Your task to perform on an android device: toggle translation in the chrome app Image 0: 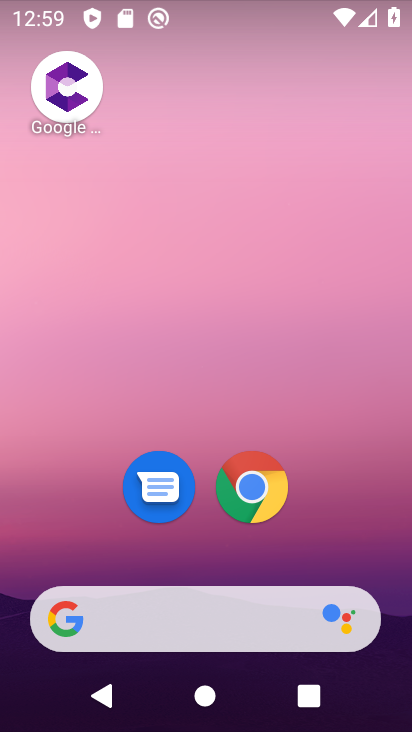
Step 0: drag from (356, 561) to (337, 433)
Your task to perform on an android device: toggle translation in the chrome app Image 1: 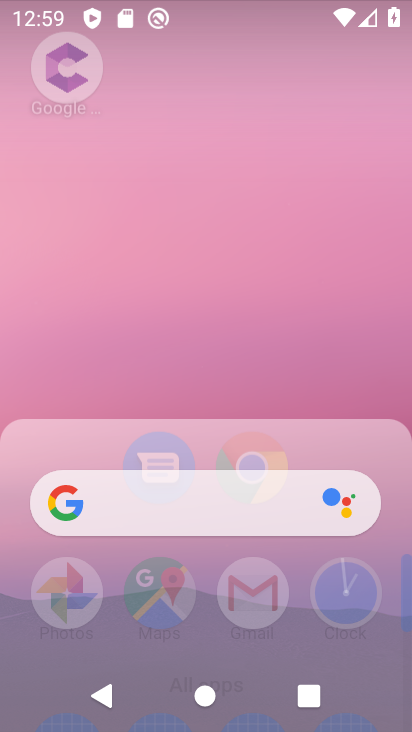
Step 1: click (336, 433)
Your task to perform on an android device: toggle translation in the chrome app Image 2: 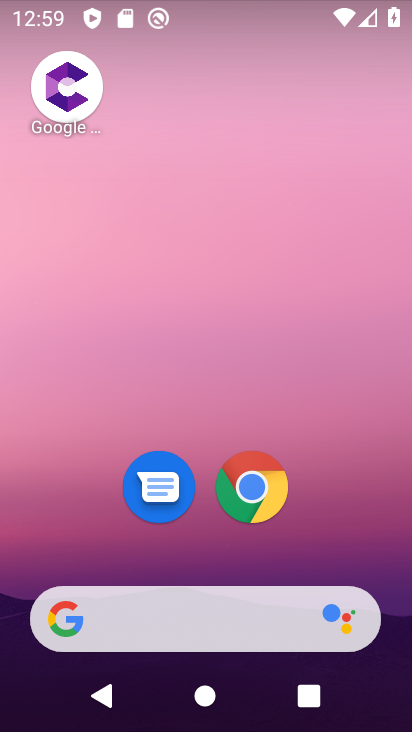
Step 2: click (276, 496)
Your task to perform on an android device: toggle translation in the chrome app Image 3: 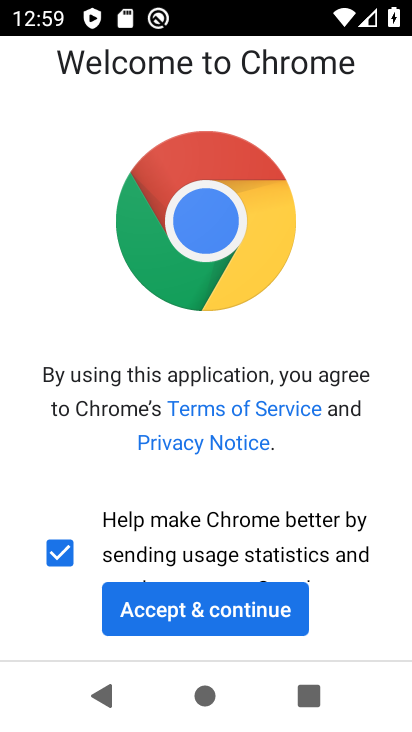
Step 3: click (271, 615)
Your task to perform on an android device: toggle translation in the chrome app Image 4: 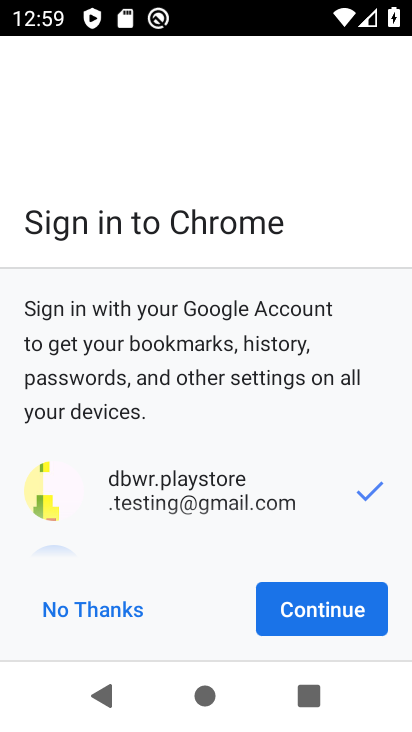
Step 4: click (291, 622)
Your task to perform on an android device: toggle translation in the chrome app Image 5: 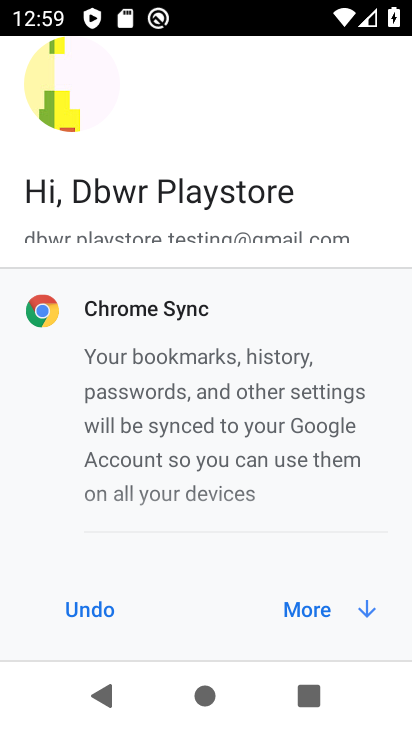
Step 5: click (294, 612)
Your task to perform on an android device: toggle translation in the chrome app Image 6: 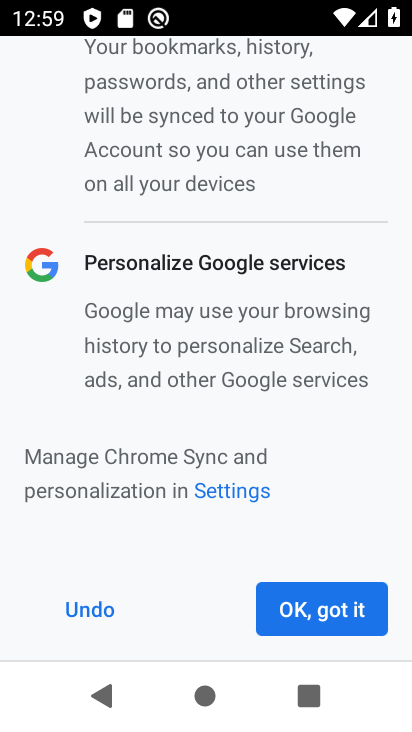
Step 6: click (311, 610)
Your task to perform on an android device: toggle translation in the chrome app Image 7: 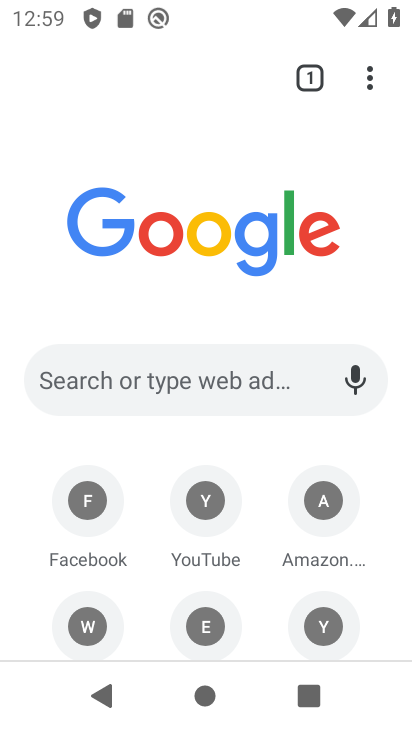
Step 7: click (363, 94)
Your task to perform on an android device: toggle translation in the chrome app Image 8: 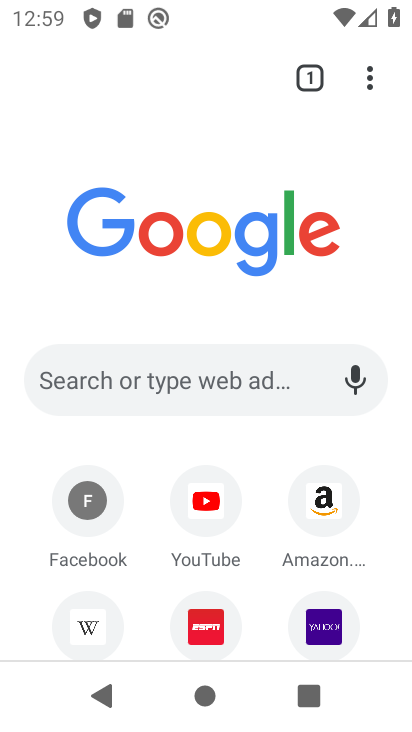
Step 8: click (369, 105)
Your task to perform on an android device: toggle translation in the chrome app Image 9: 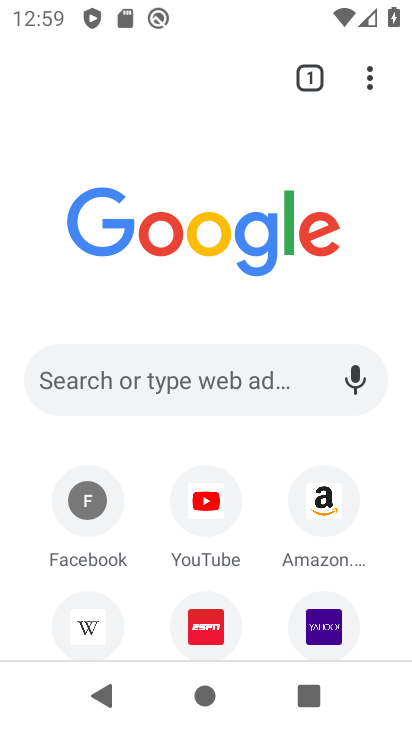
Step 9: click (369, 104)
Your task to perform on an android device: toggle translation in the chrome app Image 10: 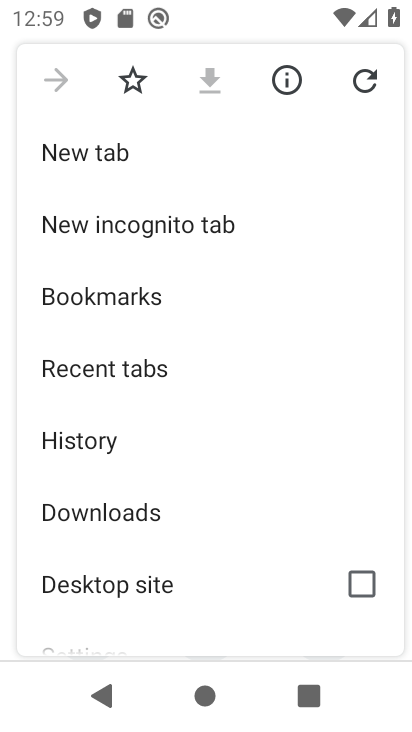
Step 10: drag from (242, 503) to (188, 274)
Your task to perform on an android device: toggle translation in the chrome app Image 11: 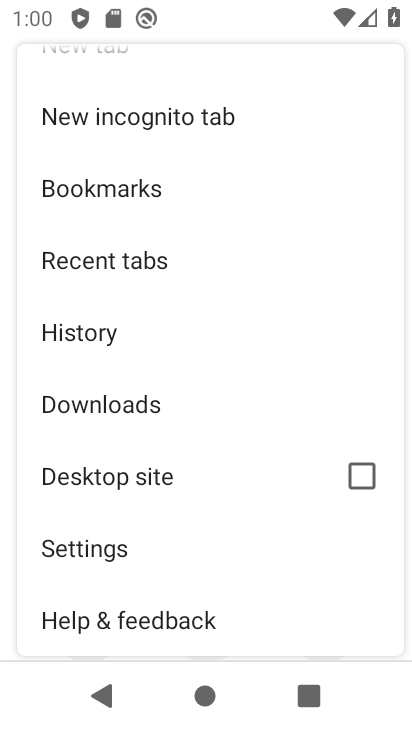
Step 11: drag from (170, 588) to (160, 250)
Your task to perform on an android device: toggle translation in the chrome app Image 12: 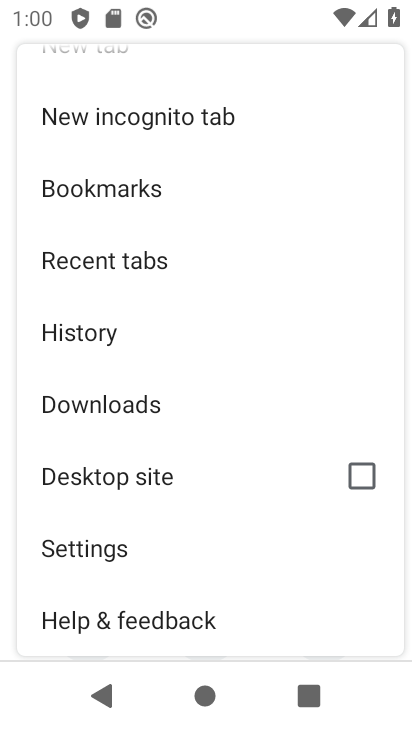
Step 12: click (117, 557)
Your task to perform on an android device: toggle translation in the chrome app Image 13: 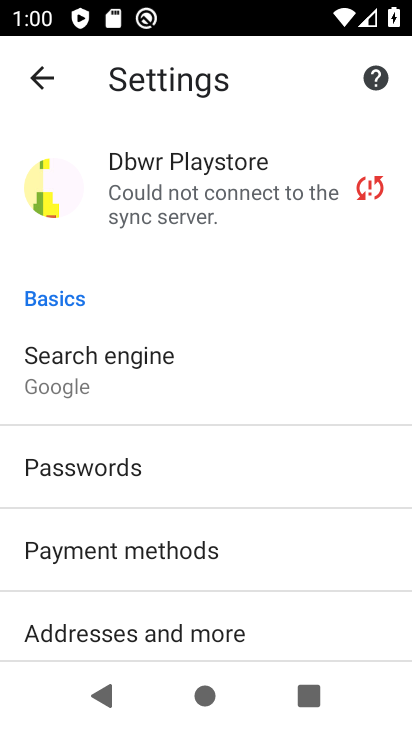
Step 13: drag from (220, 606) to (193, 320)
Your task to perform on an android device: toggle translation in the chrome app Image 14: 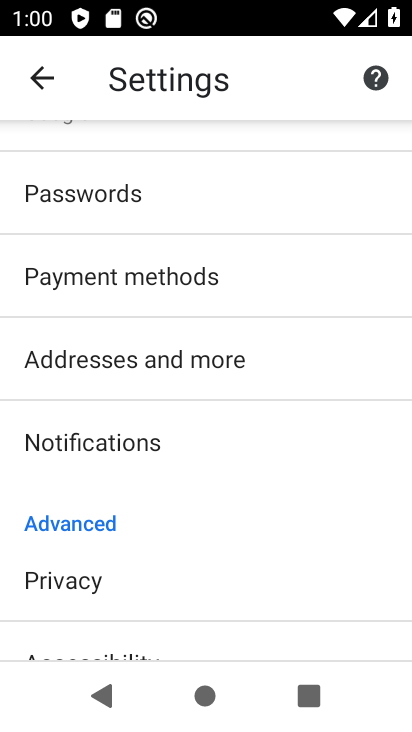
Step 14: drag from (179, 584) to (169, 252)
Your task to perform on an android device: toggle translation in the chrome app Image 15: 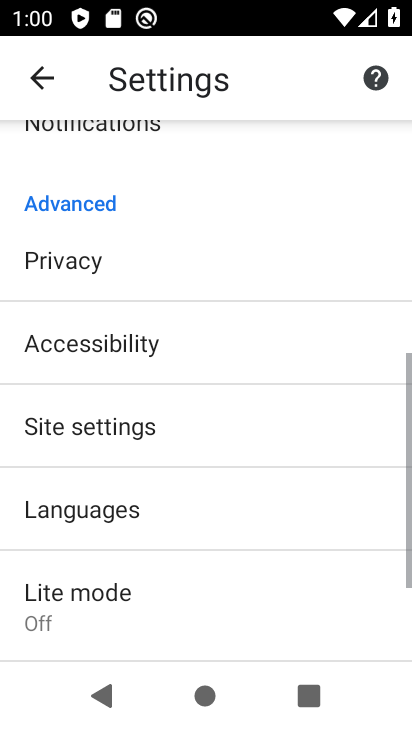
Step 15: click (159, 494)
Your task to perform on an android device: toggle translation in the chrome app Image 16: 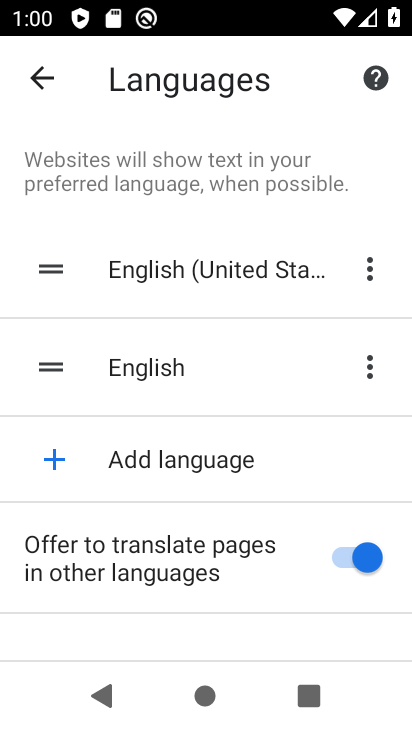
Step 16: click (364, 552)
Your task to perform on an android device: toggle translation in the chrome app Image 17: 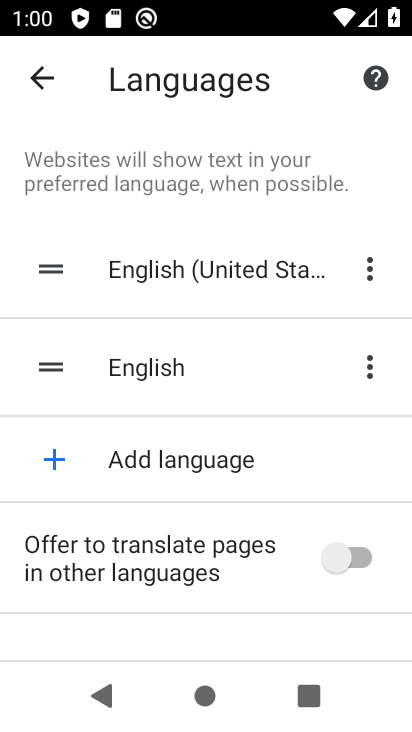
Step 17: task complete